Your task to perform on an android device: toggle data saver in the chrome app Image 0: 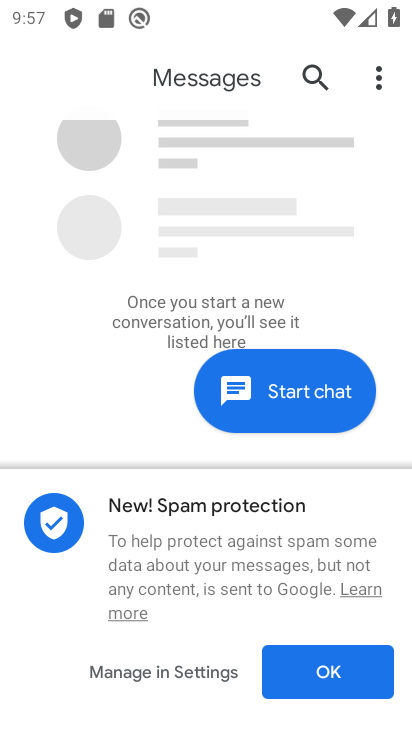
Step 0: press home button
Your task to perform on an android device: toggle data saver in the chrome app Image 1: 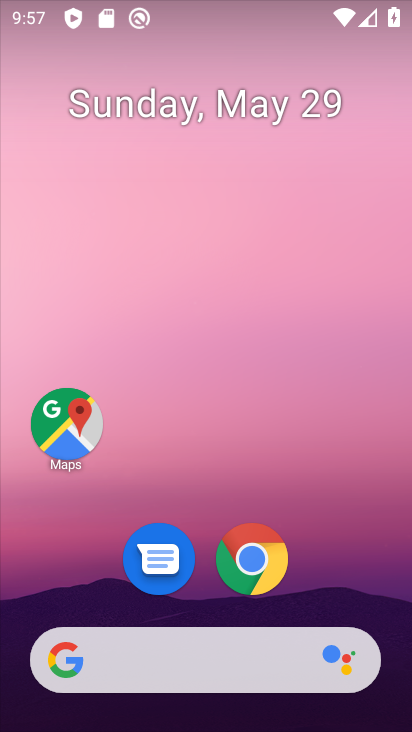
Step 1: drag from (353, 613) to (165, 130)
Your task to perform on an android device: toggle data saver in the chrome app Image 2: 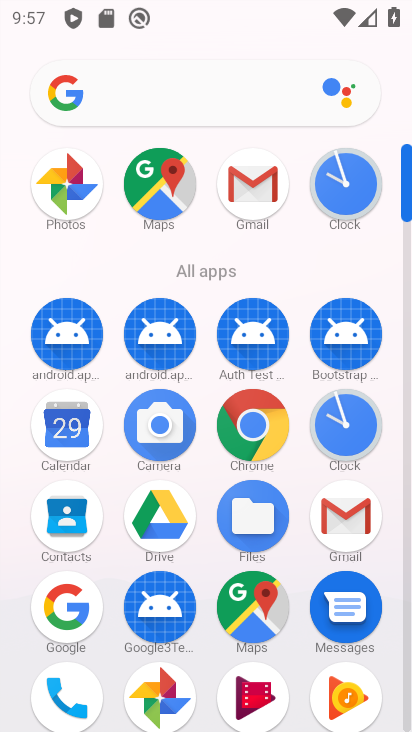
Step 2: click (245, 450)
Your task to perform on an android device: toggle data saver in the chrome app Image 3: 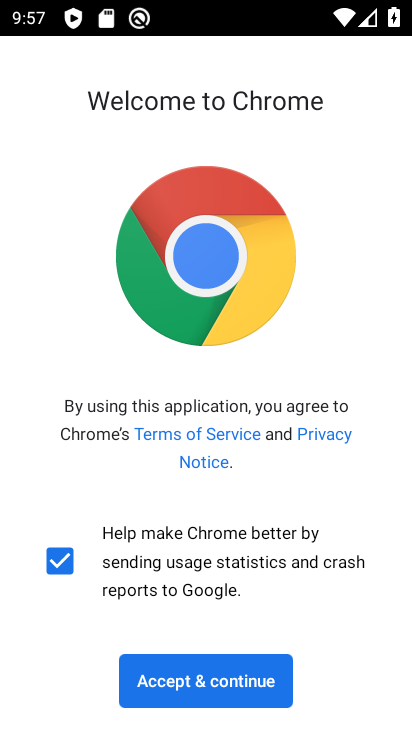
Step 3: click (194, 694)
Your task to perform on an android device: toggle data saver in the chrome app Image 4: 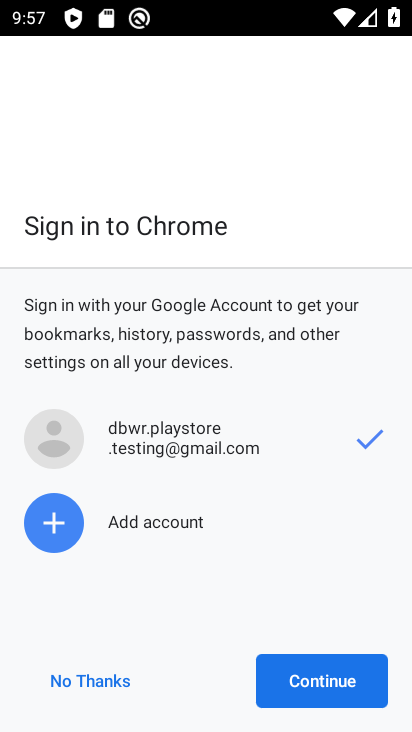
Step 4: click (375, 687)
Your task to perform on an android device: toggle data saver in the chrome app Image 5: 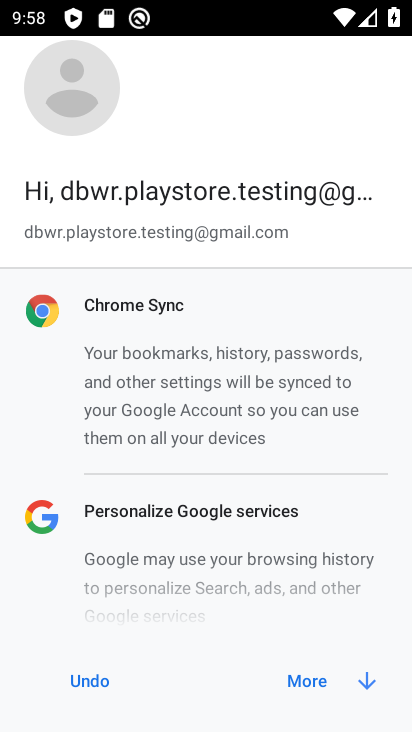
Step 5: click (328, 684)
Your task to perform on an android device: toggle data saver in the chrome app Image 6: 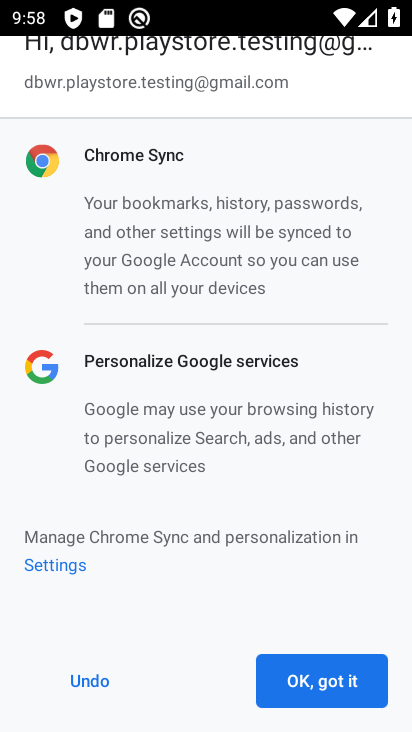
Step 6: click (328, 684)
Your task to perform on an android device: toggle data saver in the chrome app Image 7: 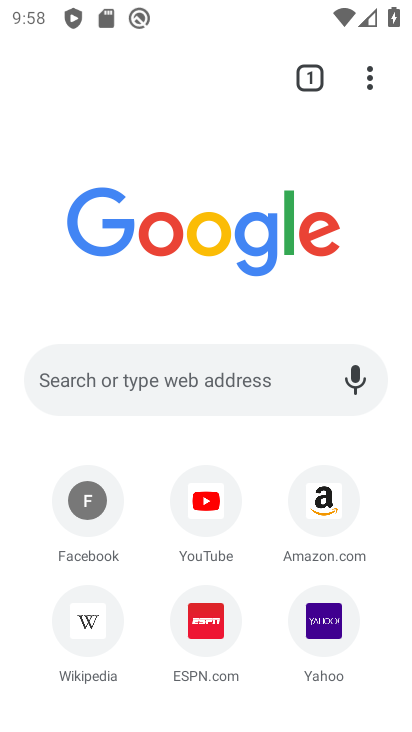
Step 7: click (369, 74)
Your task to perform on an android device: toggle data saver in the chrome app Image 8: 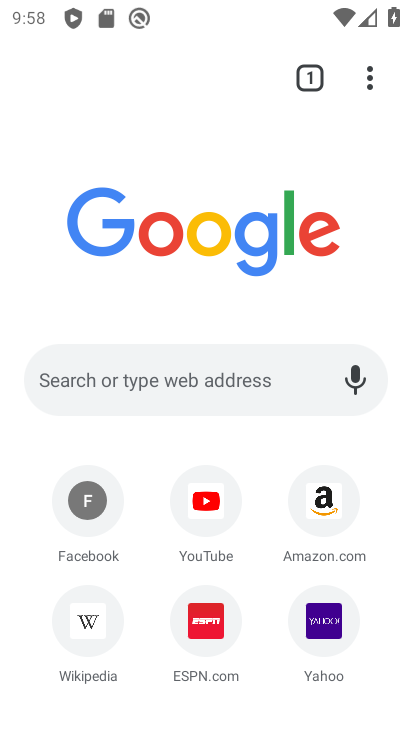
Step 8: click (370, 82)
Your task to perform on an android device: toggle data saver in the chrome app Image 9: 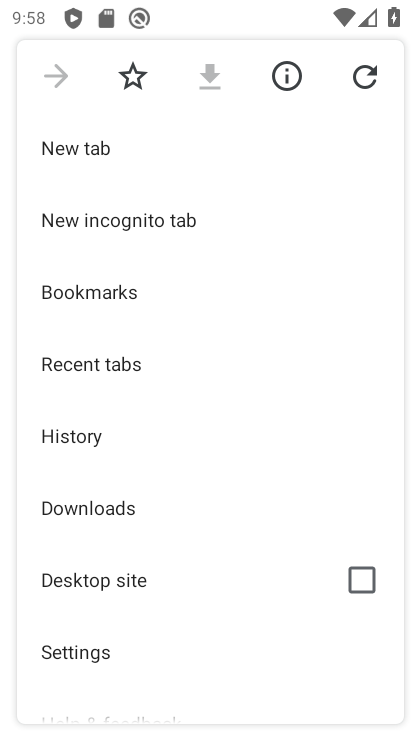
Step 9: drag from (114, 615) to (151, 267)
Your task to perform on an android device: toggle data saver in the chrome app Image 10: 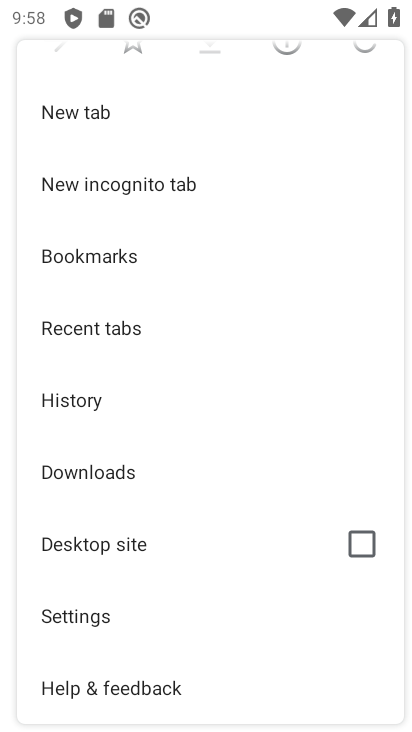
Step 10: click (92, 600)
Your task to perform on an android device: toggle data saver in the chrome app Image 11: 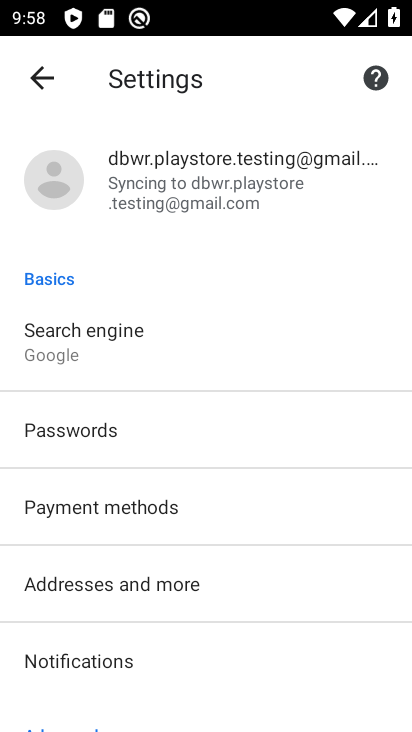
Step 11: drag from (122, 638) to (115, 269)
Your task to perform on an android device: toggle data saver in the chrome app Image 12: 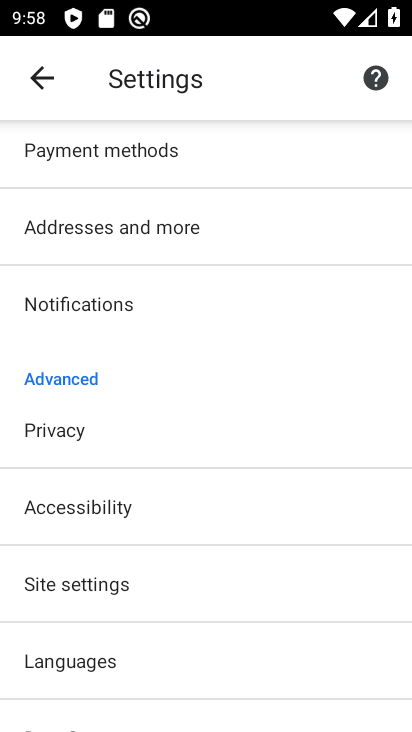
Step 12: drag from (82, 646) to (73, 264)
Your task to perform on an android device: toggle data saver in the chrome app Image 13: 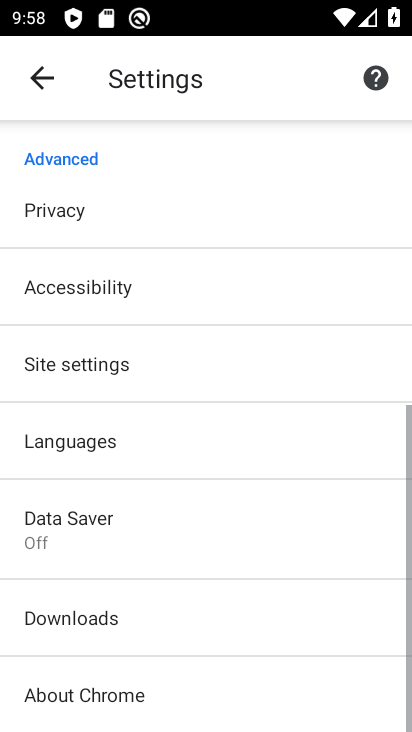
Step 13: click (75, 517)
Your task to perform on an android device: toggle data saver in the chrome app Image 14: 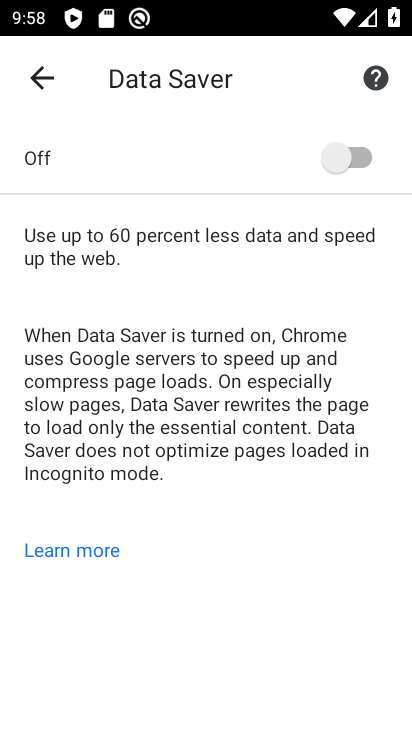
Step 14: click (375, 165)
Your task to perform on an android device: toggle data saver in the chrome app Image 15: 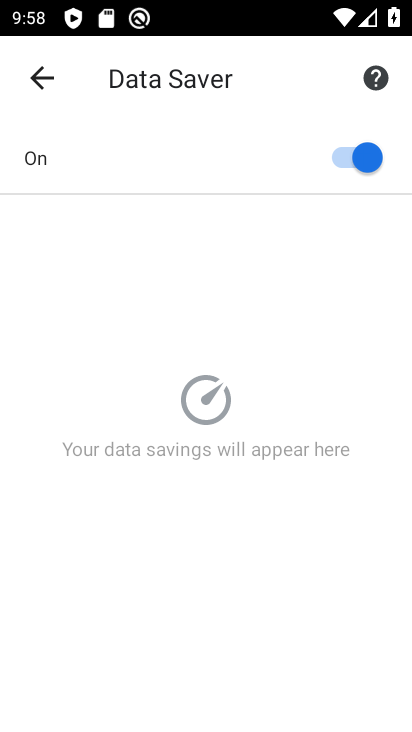
Step 15: task complete